Your task to perform on an android device: Go to network settings Image 0: 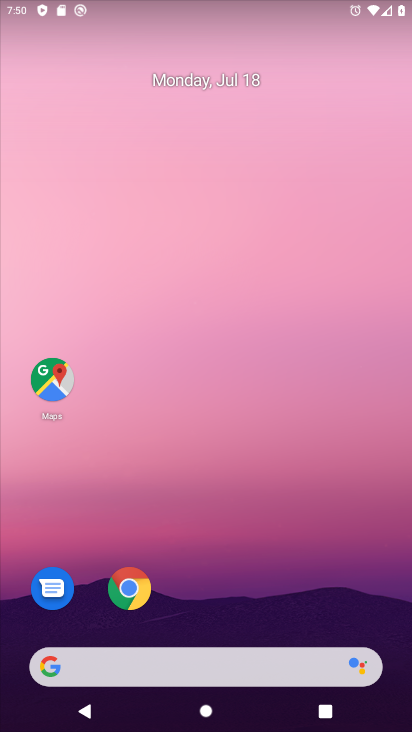
Step 0: drag from (223, 633) to (239, 309)
Your task to perform on an android device: Go to network settings Image 1: 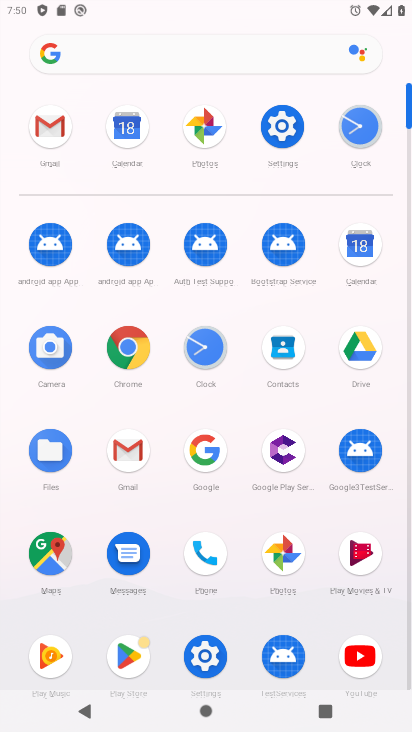
Step 1: click (210, 669)
Your task to perform on an android device: Go to network settings Image 2: 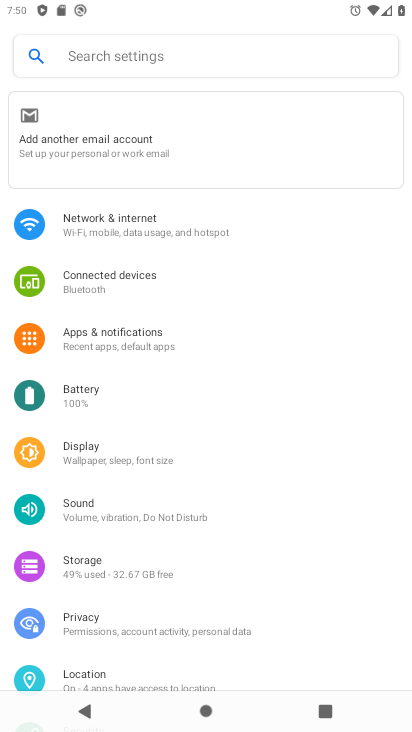
Step 2: click (132, 227)
Your task to perform on an android device: Go to network settings Image 3: 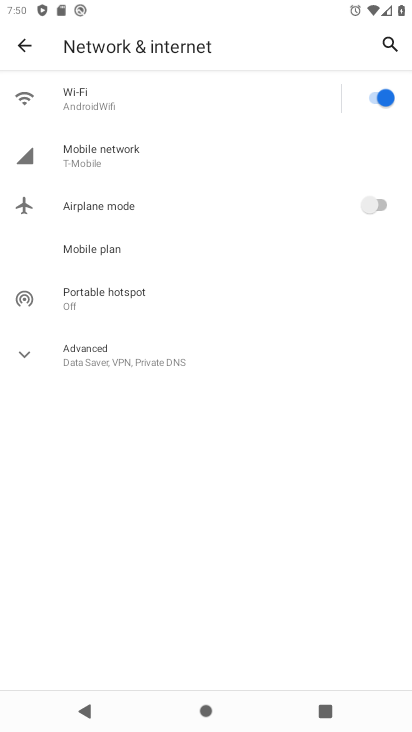
Step 3: task complete